Your task to perform on an android device: Go to Google Image 0: 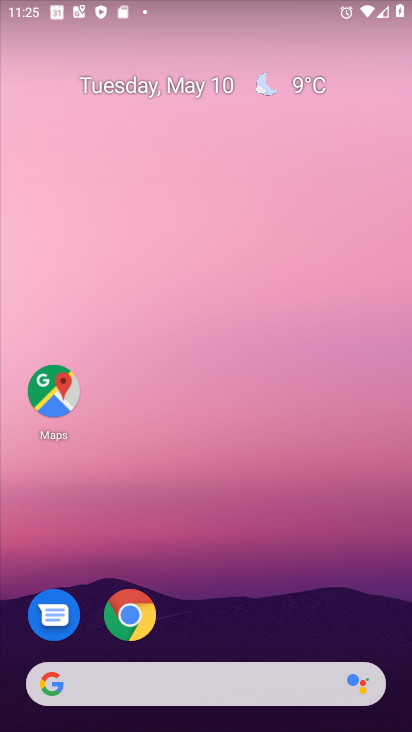
Step 0: drag from (212, 640) to (241, 139)
Your task to perform on an android device: Go to Google Image 1: 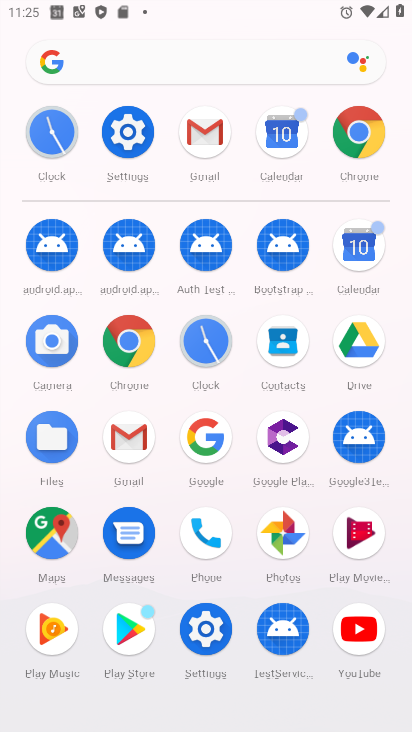
Step 1: click (202, 431)
Your task to perform on an android device: Go to Google Image 2: 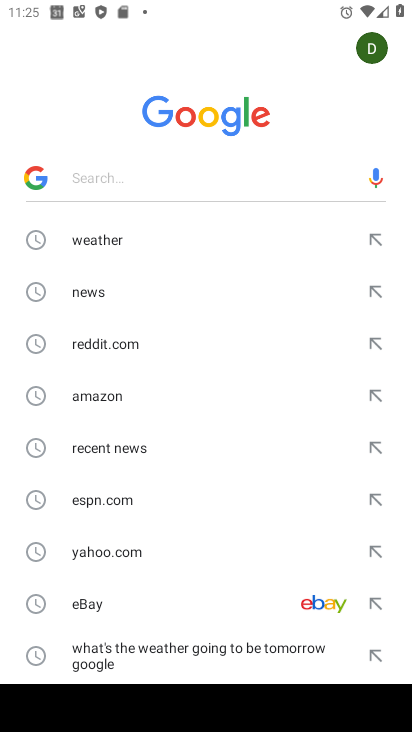
Step 2: press back button
Your task to perform on an android device: Go to Google Image 3: 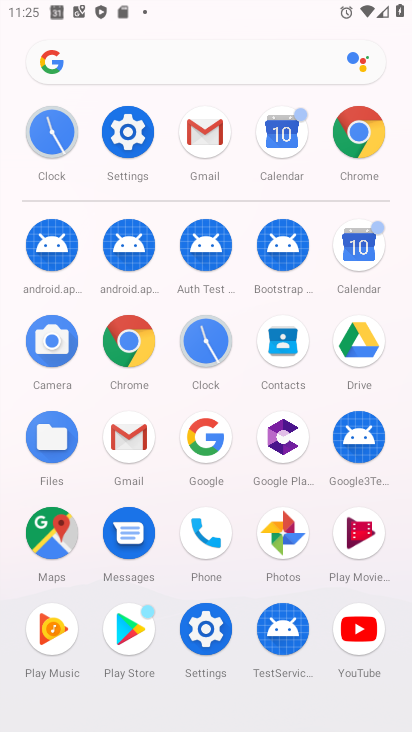
Step 3: click (207, 423)
Your task to perform on an android device: Go to Google Image 4: 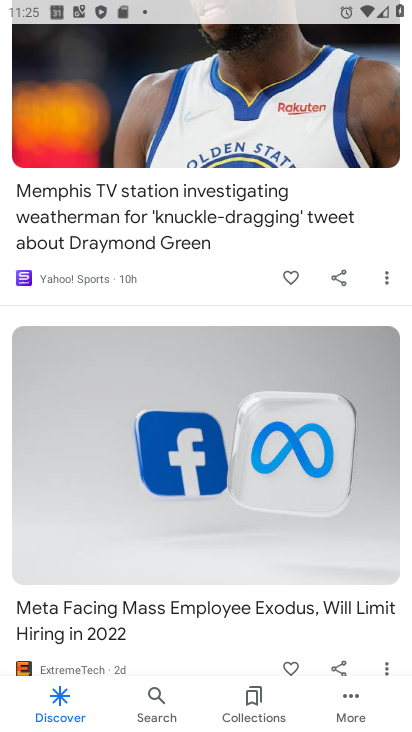
Step 4: task complete